Your task to perform on an android device: check data usage Image 0: 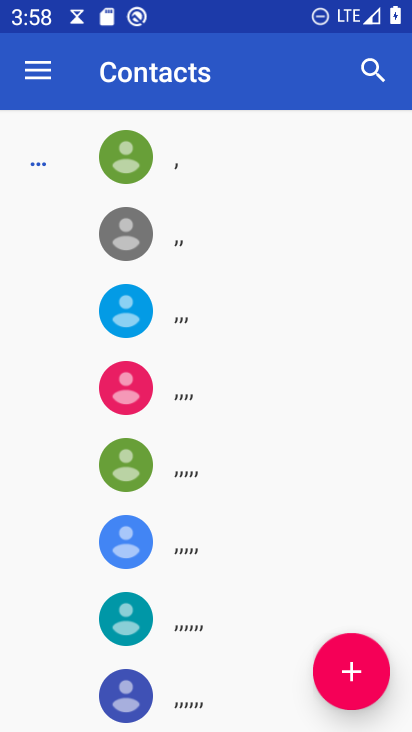
Step 0: press home button
Your task to perform on an android device: check data usage Image 1: 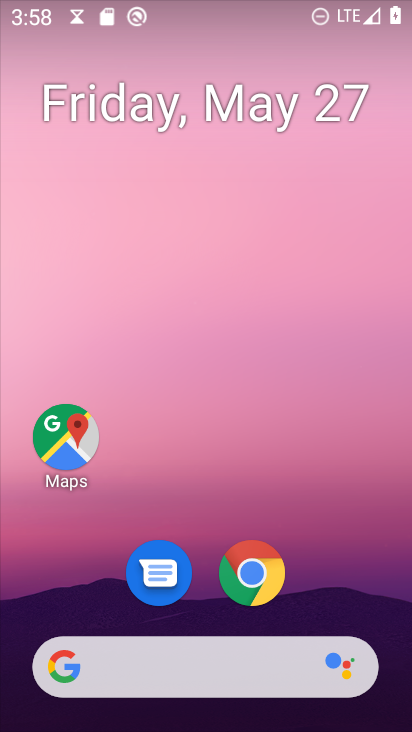
Step 1: drag from (327, 565) to (317, 12)
Your task to perform on an android device: check data usage Image 2: 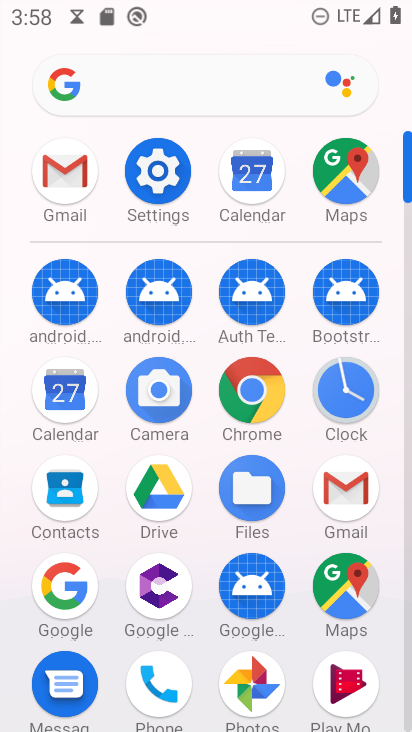
Step 2: click (155, 167)
Your task to perform on an android device: check data usage Image 3: 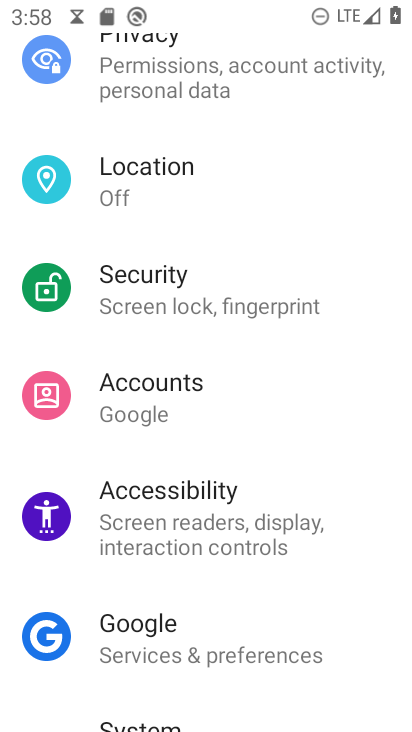
Step 3: drag from (224, 262) to (256, 700)
Your task to perform on an android device: check data usage Image 4: 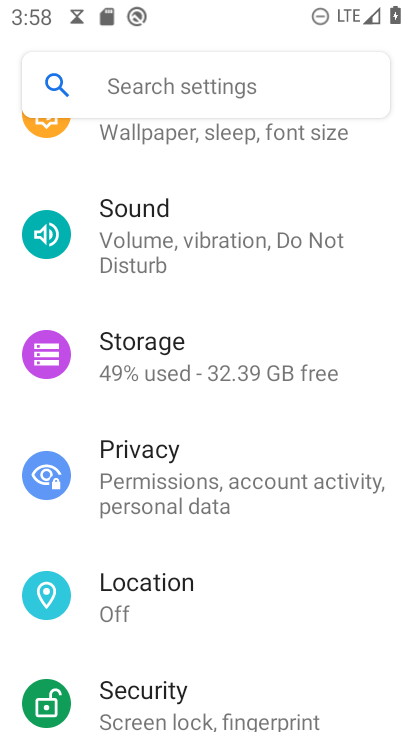
Step 4: drag from (257, 232) to (278, 634)
Your task to perform on an android device: check data usage Image 5: 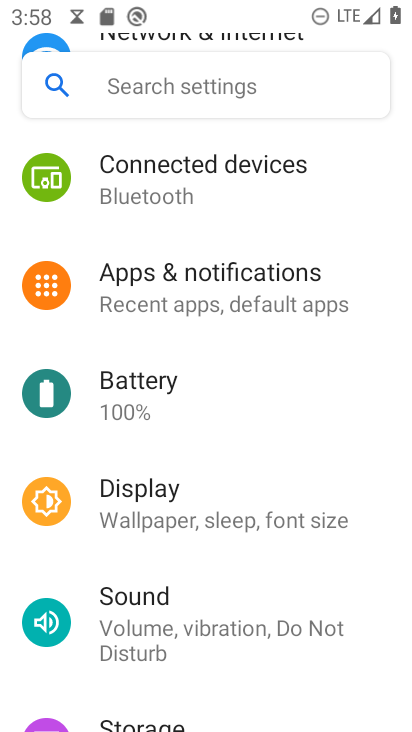
Step 5: drag from (205, 237) to (196, 702)
Your task to perform on an android device: check data usage Image 6: 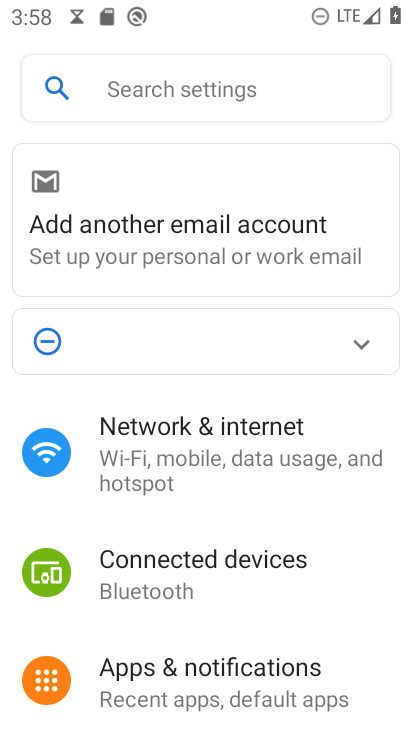
Step 6: click (268, 435)
Your task to perform on an android device: check data usage Image 7: 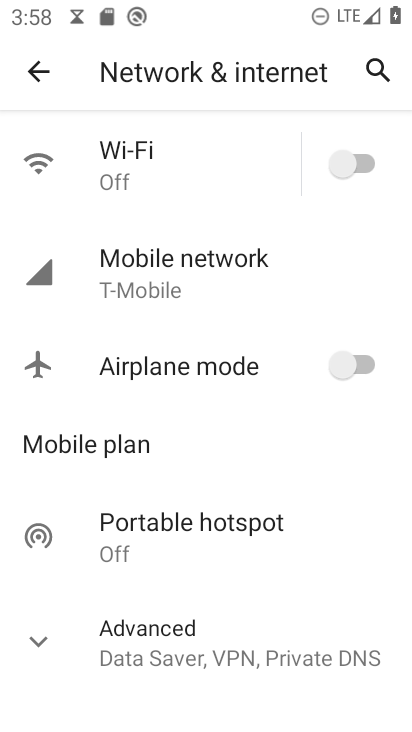
Step 7: click (161, 289)
Your task to perform on an android device: check data usage Image 8: 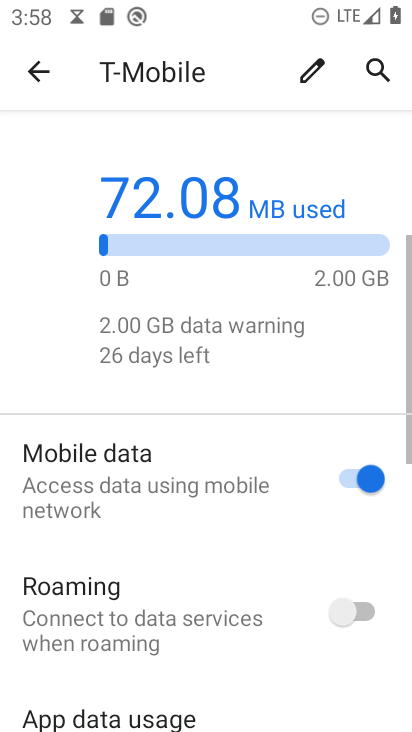
Step 8: drag from (148, 634) to (194, 335)
Your task to perform on an android device: check data usage Image 9: 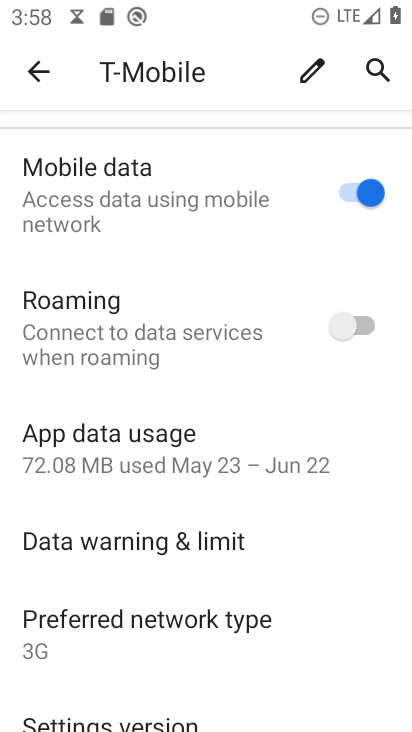
Step 9: click (149, 432)
Your task to perform on an android device: check data usage Image 10: 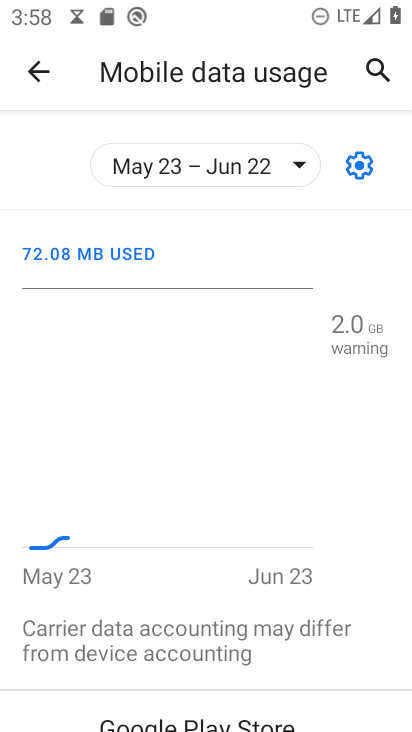
Step 10: task complete